Your task to perform on an android device: Go to Maps Image 0: 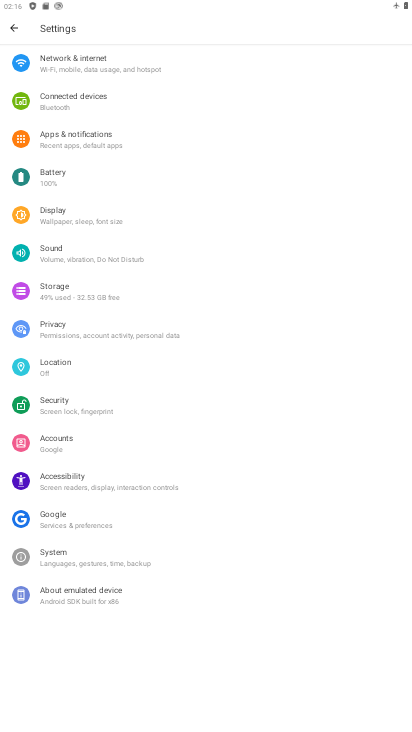
Step 0: press home button
Your task to perform on an android device: Go to Maps Image 1: 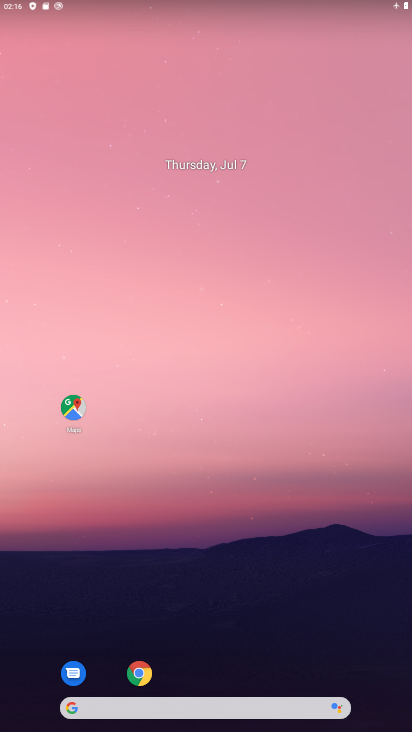
Step 1: drag from (199, 656) to (165, 209)
Your task to perform on an android device: Go to Maps Image 2: 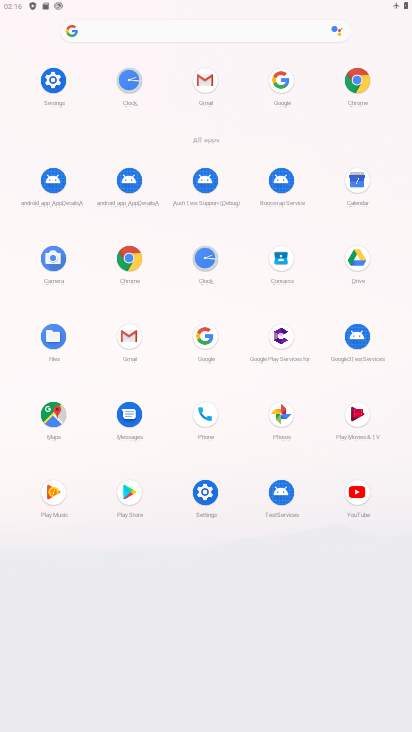
Step 2: click (59, 431)
Your task to perform on an android device: Go to Maps Image 3: 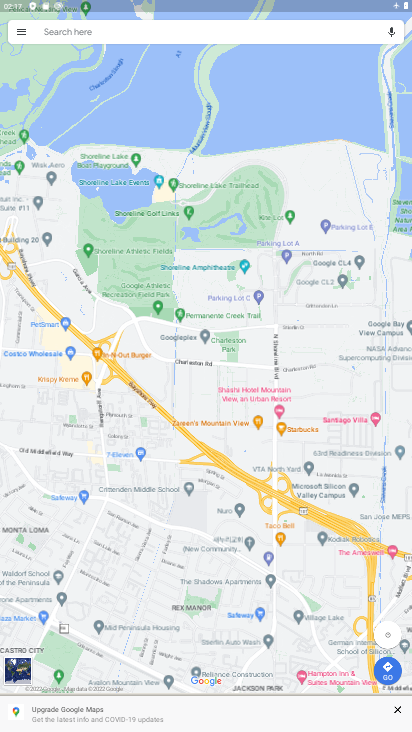
Step 3: task complete